Your task to perform on an android device: Go to eBay Image 0: 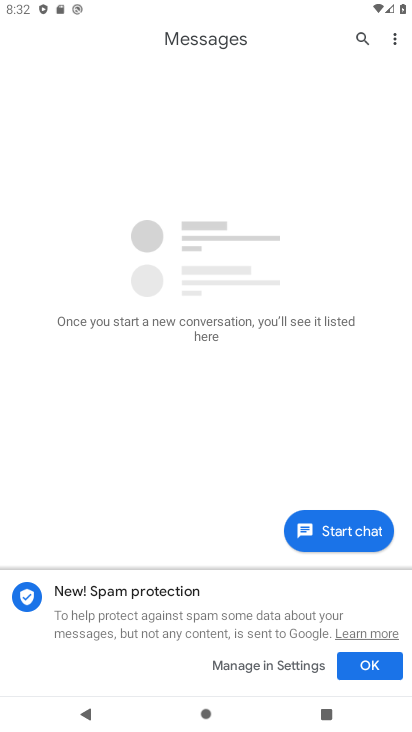
Step 0: press home button
Your task to perform on an android device: Go to eBay Image 1: 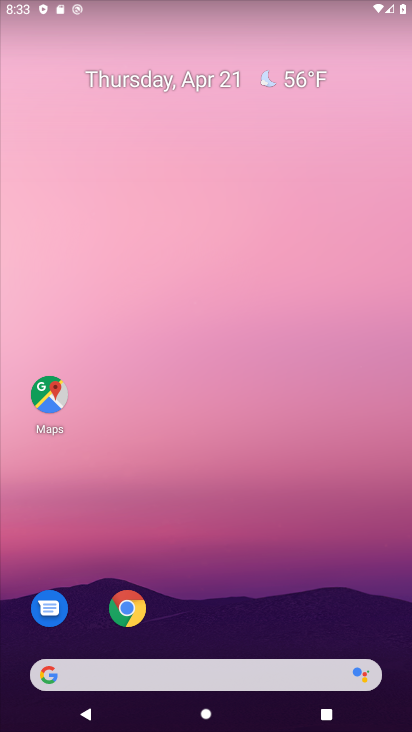
Step 1: click (130, 610)
Your task to perform on an android device: Go to eBay Image 2: 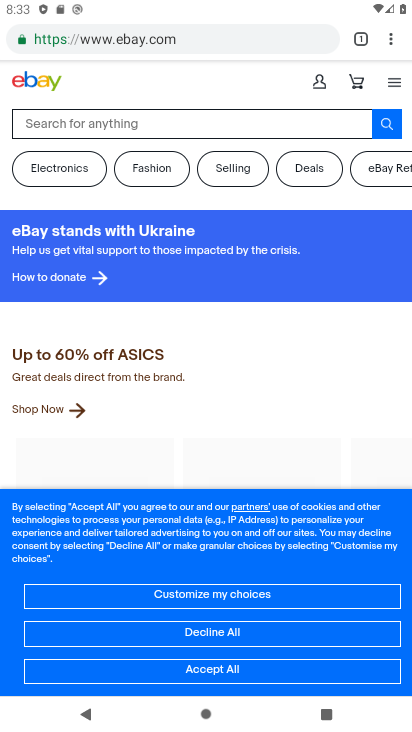
Step 2: task complete